Your task to perform on an android device: Go to location settings Image 0: 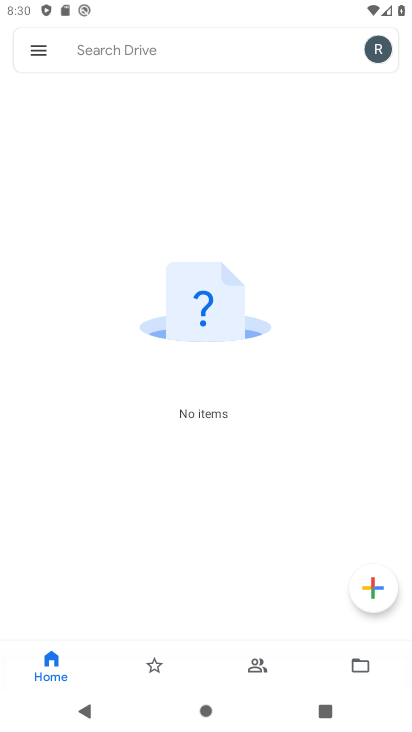
Step 0: press home button
Your task to perform on an android device: Go to location settings Image 1: 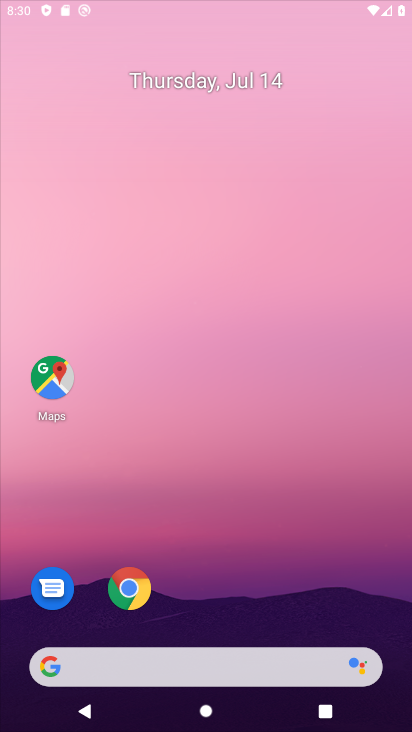
Step 1: drag from (222, 625) to (270, 205)
Your task to perform on an android device: Go to location settings Image 2: 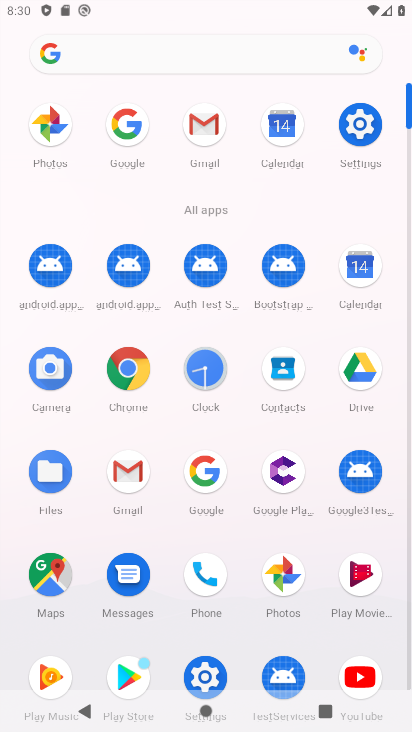
Step 2: click (361, 126)
Your task to perform on an android device: Go to location settings Image 3: 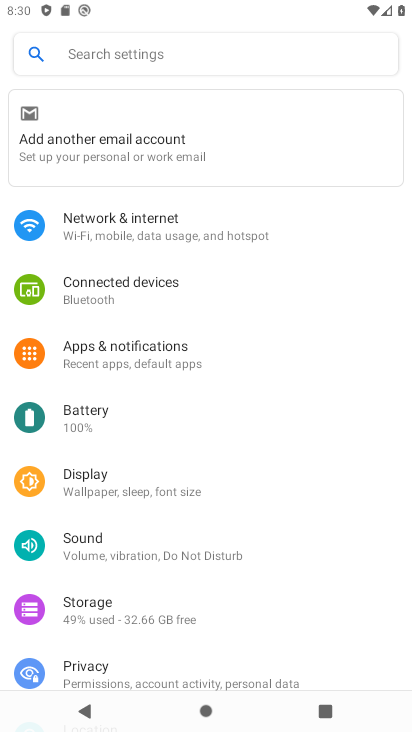
Step 3: drag from (178, 627) to (190, 405)
Your task to perform on an android device: Go to location settings Image 4: 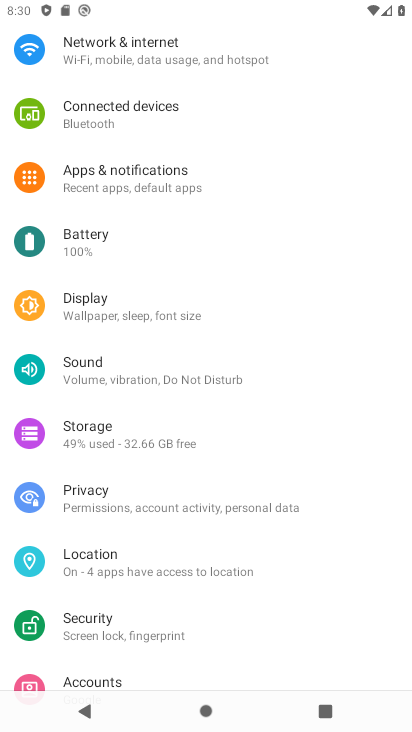
Step 4: click (146, 558)
Your task to perform on an android device: Go to location settings Image 5: 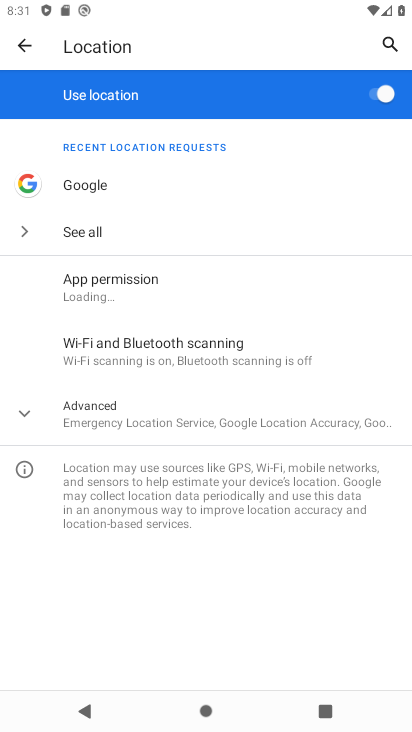
Step 5: task complete